Your task to perform on an android device: Go to Amazon Image 0: 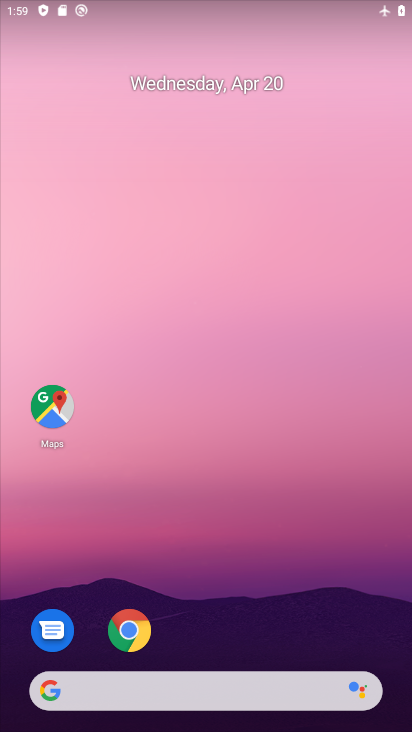
Step 0: drag from (296, 585) to (254, 274)
Your task to perform on an android device: Go to Amazon Image 1: 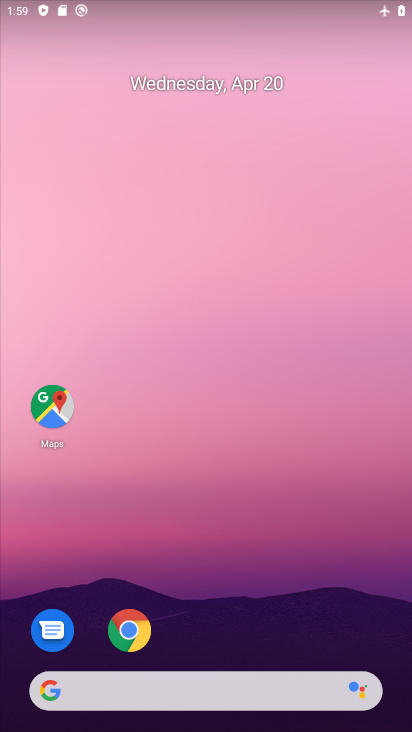
Step 1: drag from (326, 606) to (209, 213)
Your task to perform on an android device: Go to Amazon Image 2: 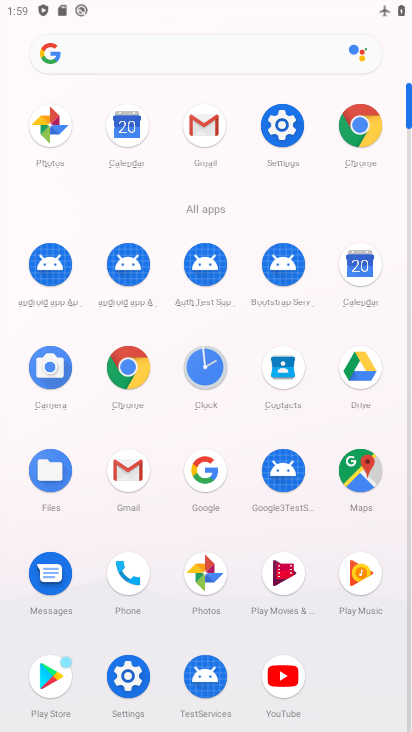
Step 2: click (128, 395)
Your task to perform on an android device: Go to Amazon Image 3: 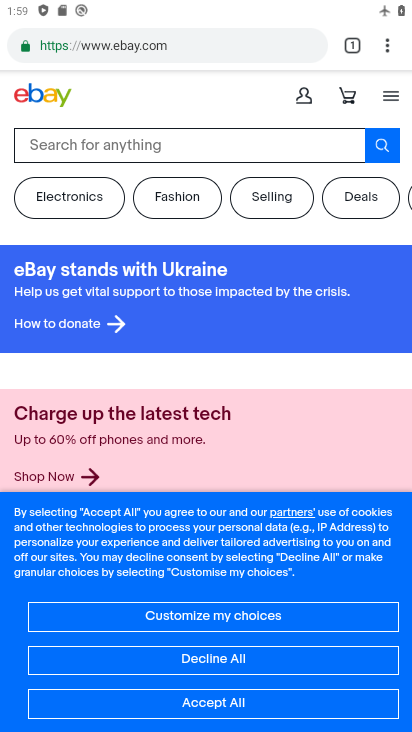
Step 3: click (362, 44)
Your task to perform on an android device: Go to Amazon Image 4: 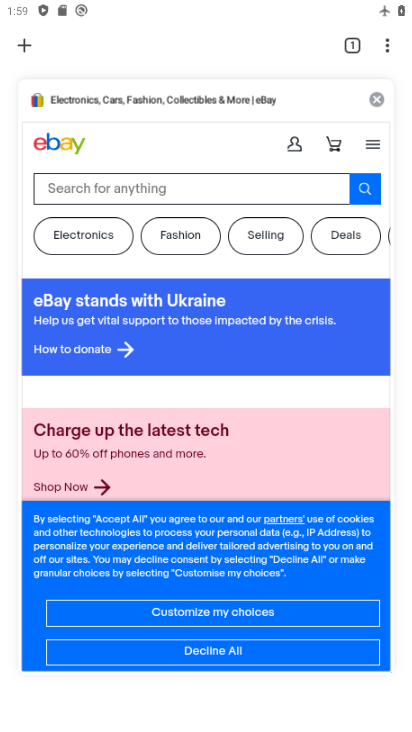
Step 4: click (22, 46)
Your task to perform on an android device: Go to Amazon Image 5: 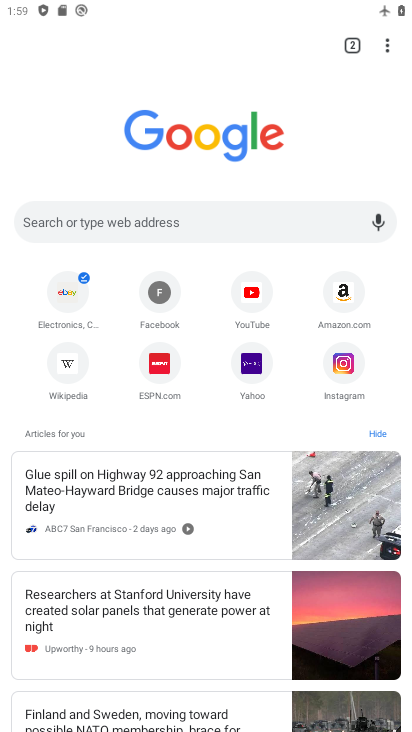
Step 5: click (346, 293)
Your task to perform on an android device: Go to Amazon Image 6: 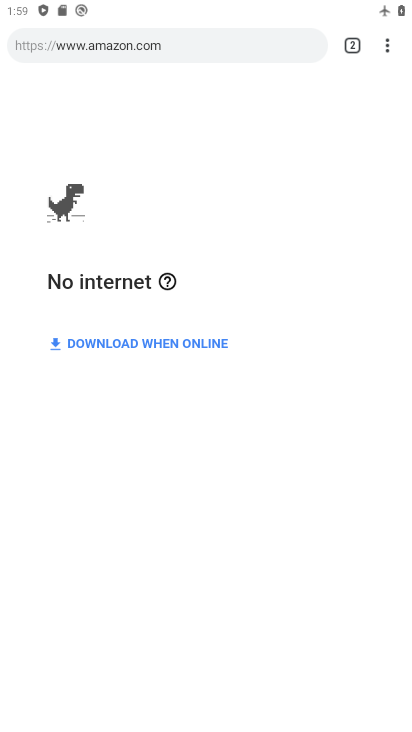
Step 6: task complete